Your task to perform on an android device: Search for the best way to get rid of a cold Image 0: 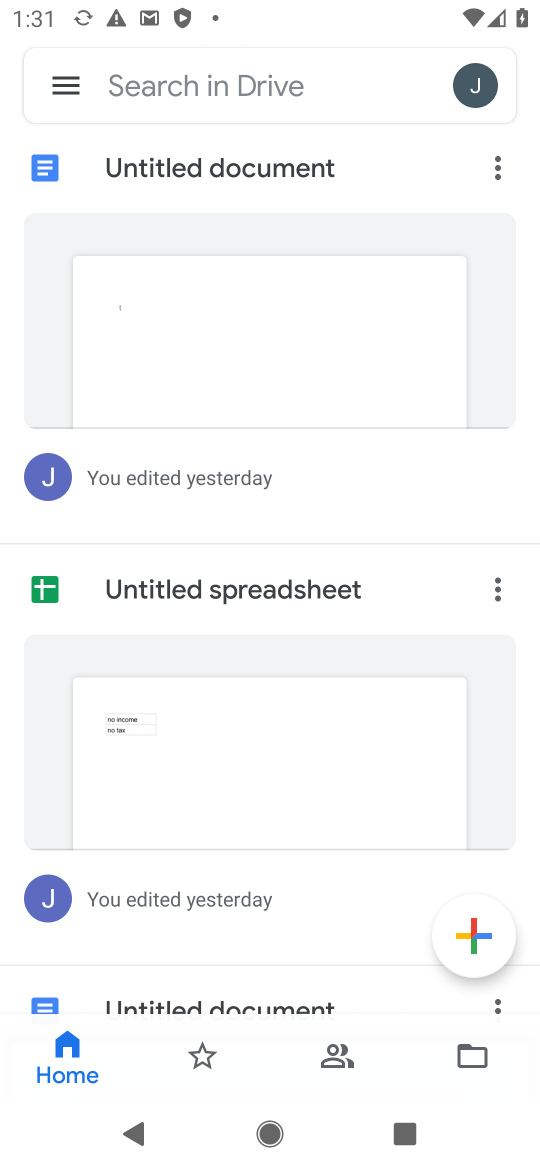
Step 0: press home button
Your task to perform on an android device: Search for the best way to get rid of a cold Image 1: 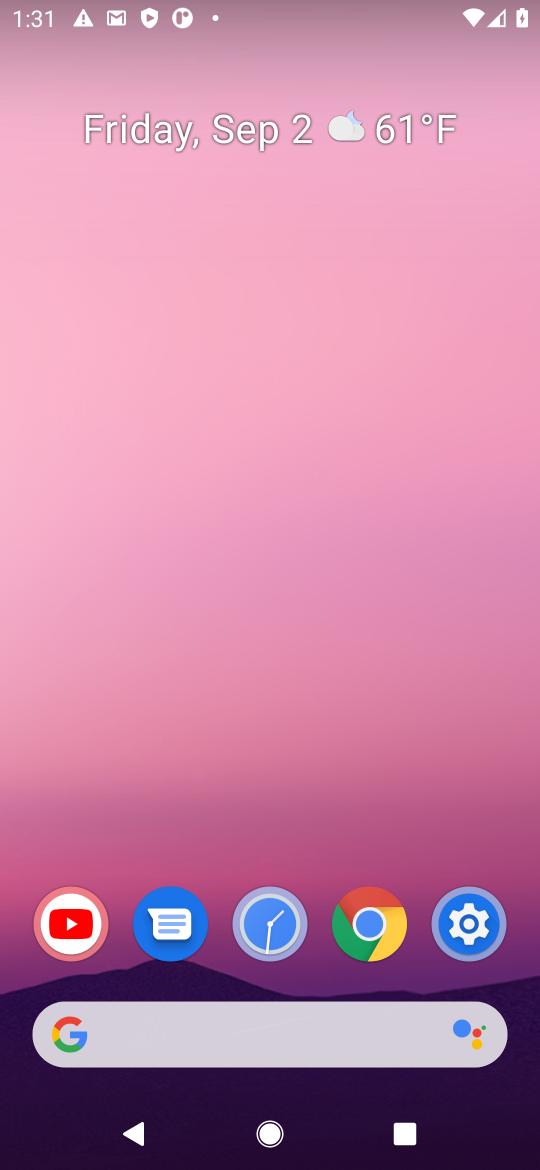
Step 1: drag from (435, 402) to (453, 109)
Your task to perform on an android device: Search for the best way to get rid of a cold Image 2: 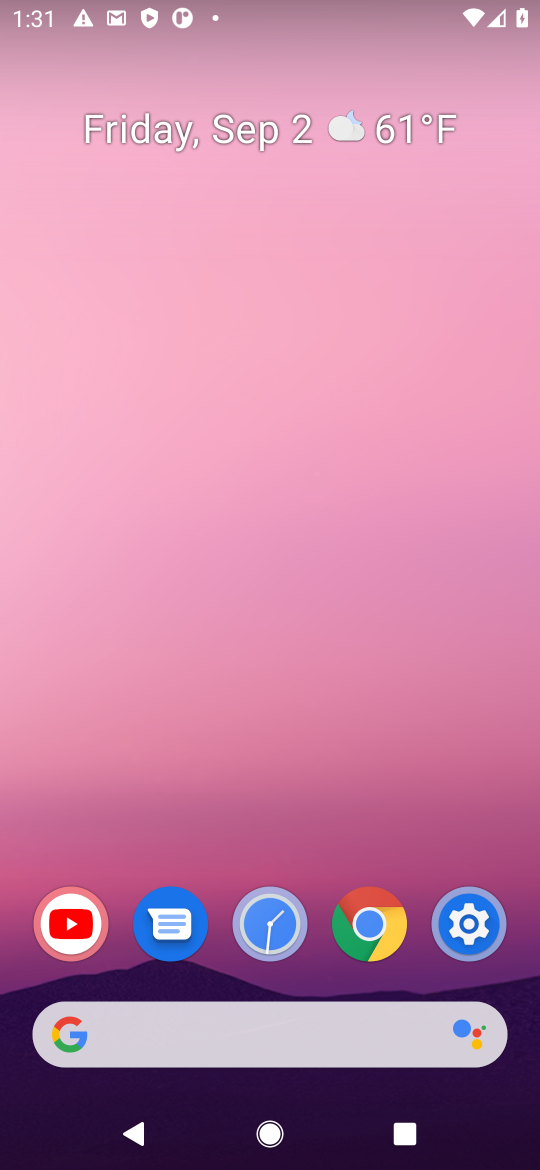
Step 2: drag from (469, 458) to (485, 138)
Your task to perform on an android device: Search for the best way to get rid of a cold Image 3: 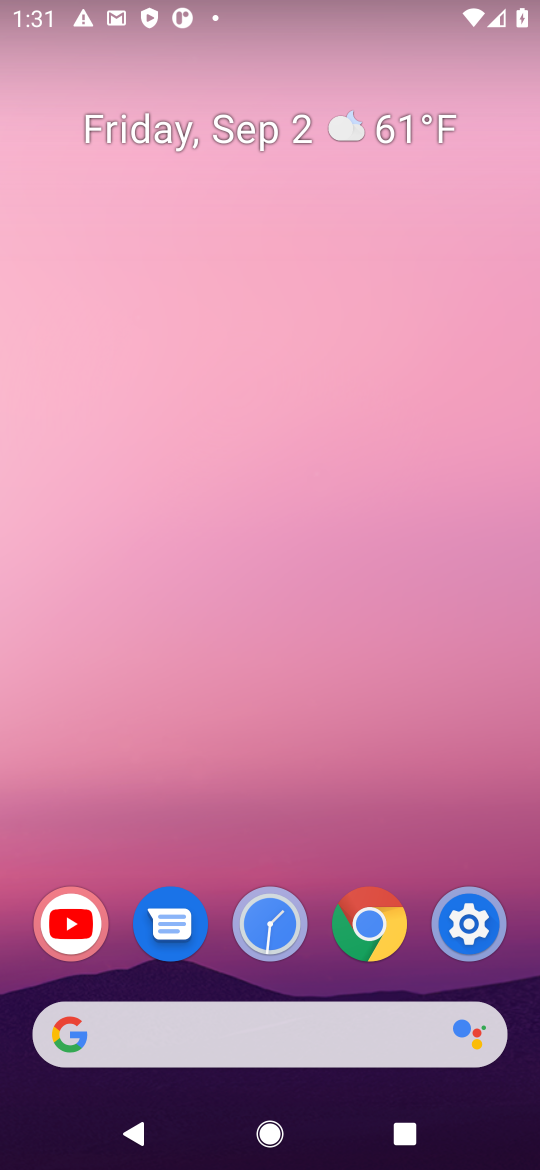
Step 3: click (333, 1021)
Your task to perform on an android device: Search for the best way to get rid of a cold Image 4: 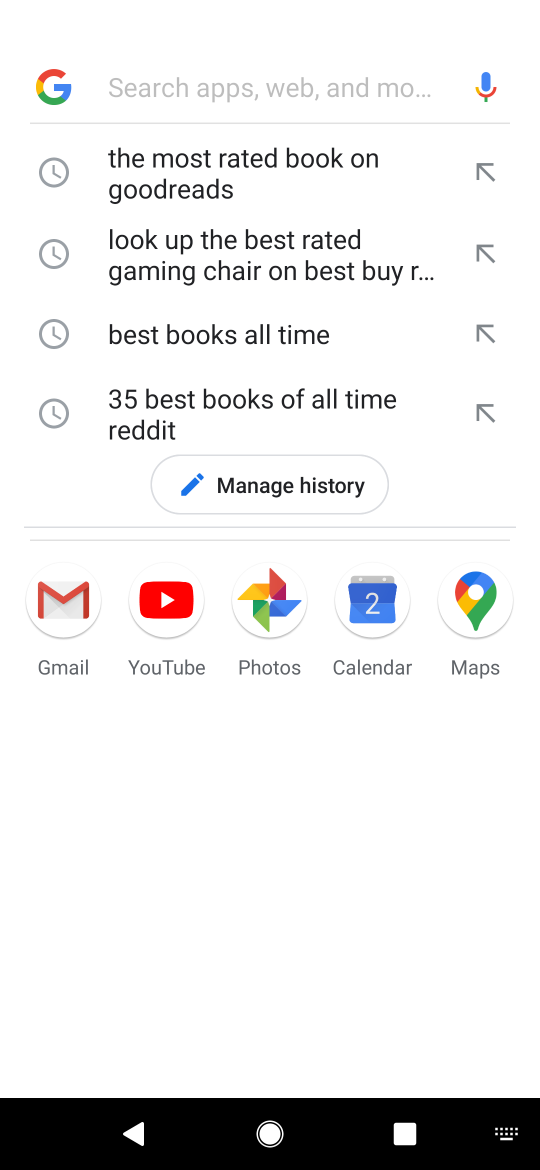
Step 4: type "the best way to get rid of a cold"
Your task to perform on an android device: Search for the best way to get rid of a cold Image 5: 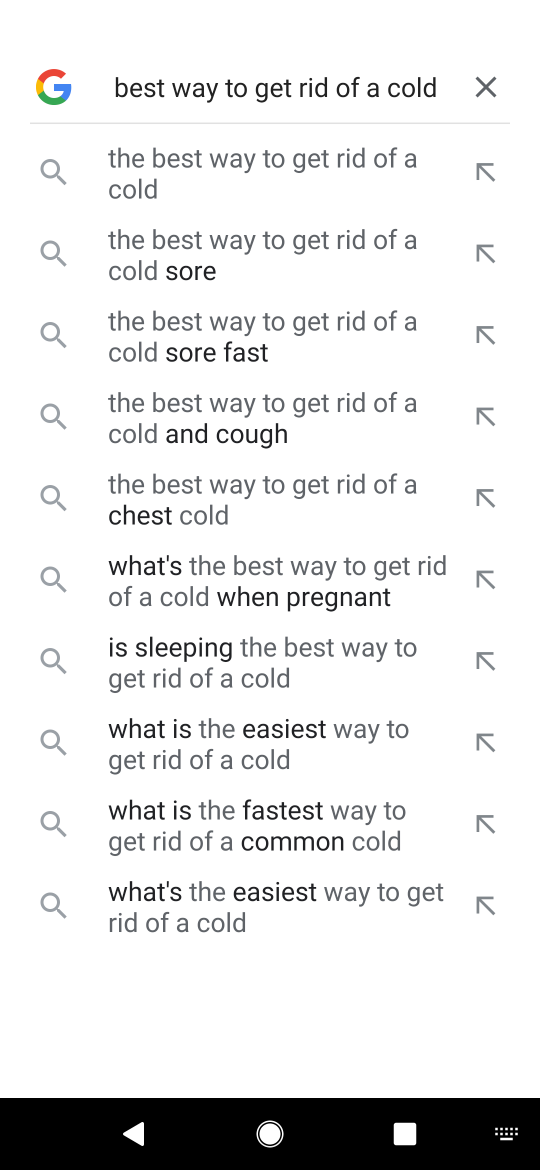
Step 5: press enter
Your task to perform on an android device: Search for the best way to get rid of a cold Image 6: 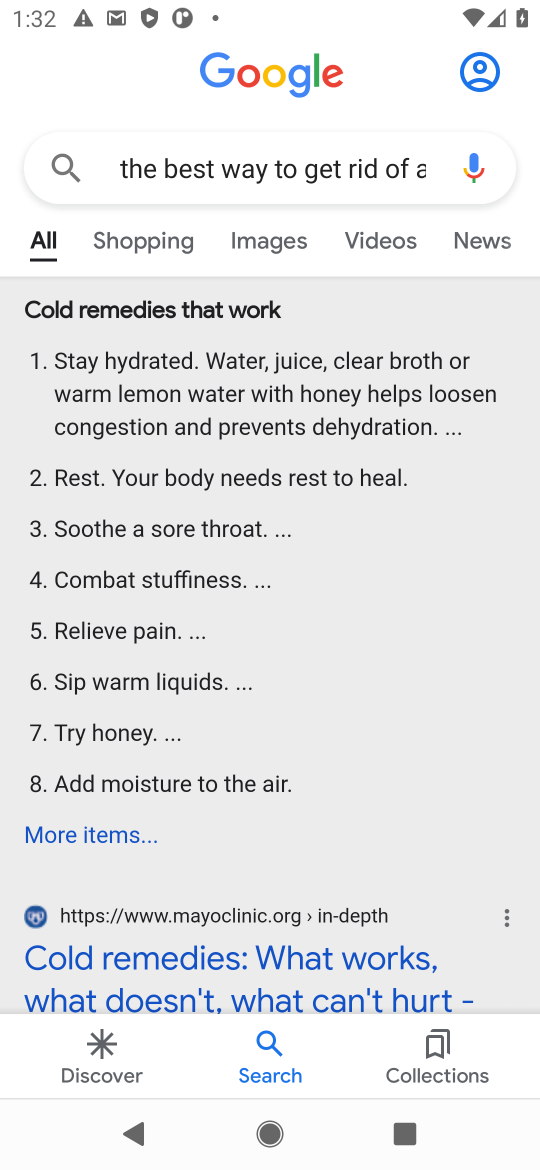
Step 6: task complete